Your task to perform on an android device: turn notification dots off Image 0: 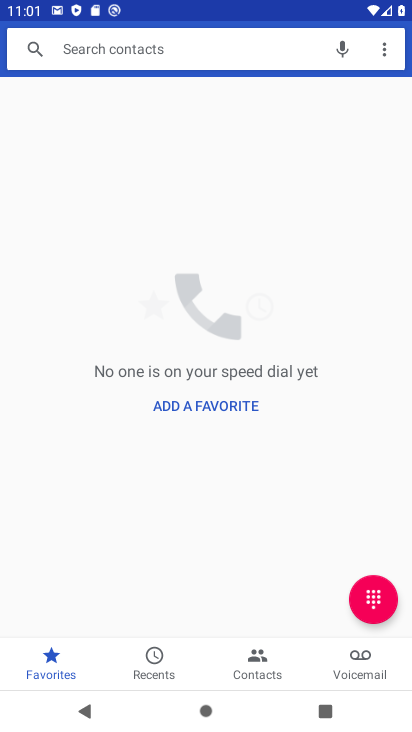
Step 0: press home button
Your task to perform on an android device: turn notification dots off Image 1: 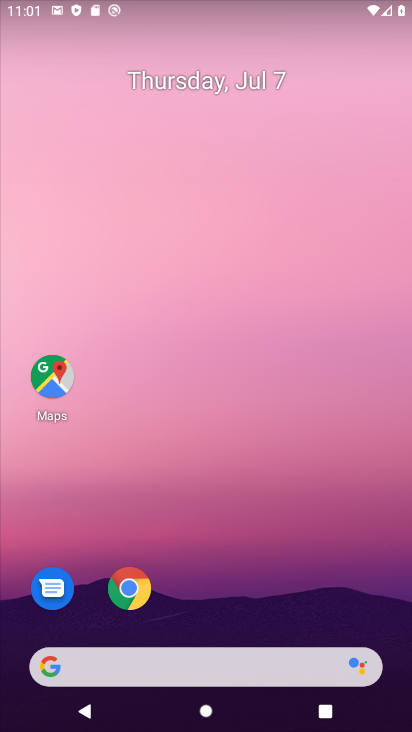
Step 1: drag from (185, 628) to (150, 57)
Your task to perform on an android device: turn notification dots off Image 2: 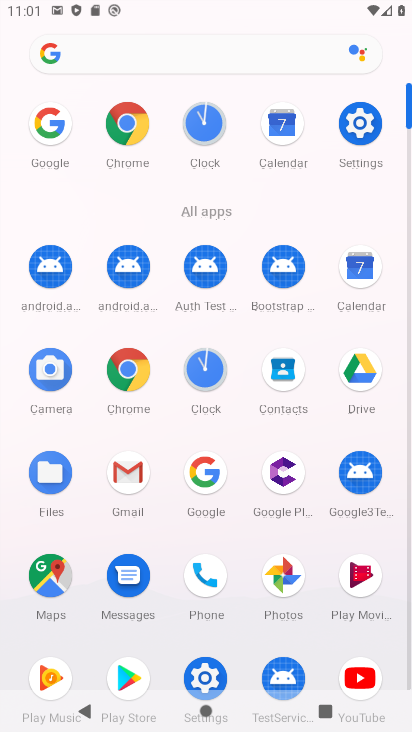
Step 2: click (330, 130)
Your task to perform on an android device: turn notification dots off Image 3: 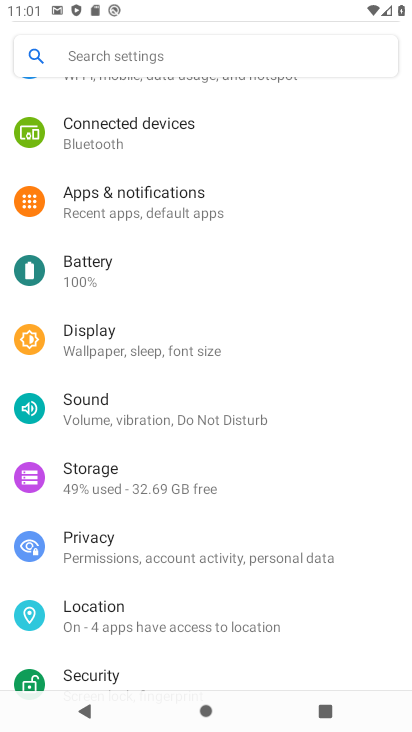
Step 3: click (188, 200)
Your task to perform on an android device: turn notification dots off Image 4: 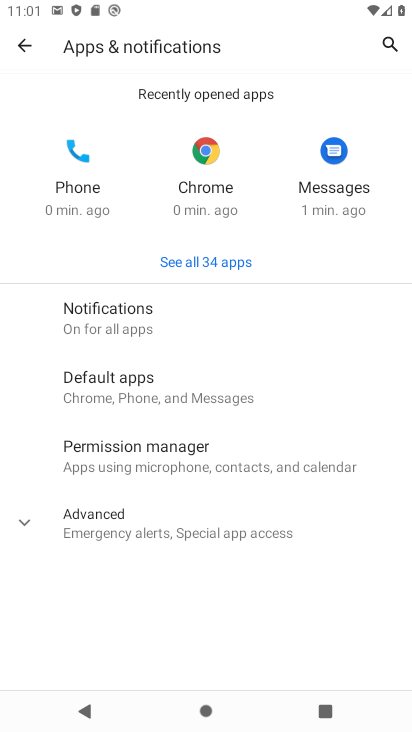
Step 4: click (96, 360)
Your task to perform on an android device: turn notification dots off Image 5: 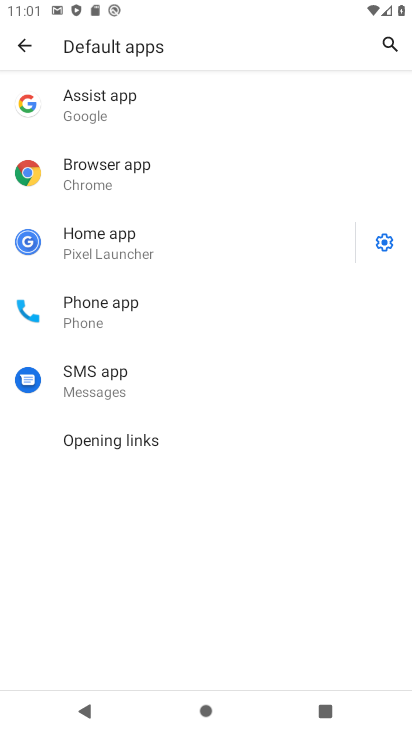
Step 5: click (30, 32)
Your task to perform on an android device: turn notification dots off Image 6: 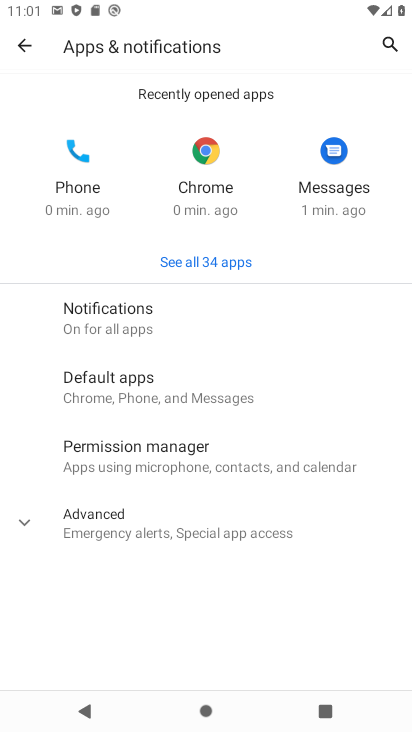
Step 6: click (172, 294)
Your task to perform on an android device: turn notification dots off Image 7: 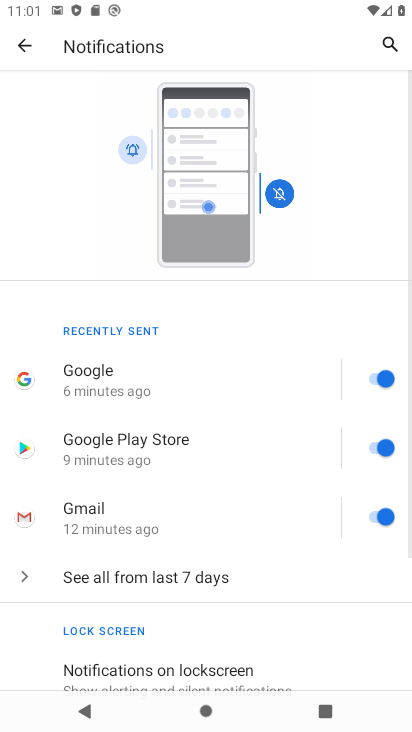
Step 7: drag from (169, 640) to (126, 174)
Your task to perform on an android device: turn notification dots off Image 8: 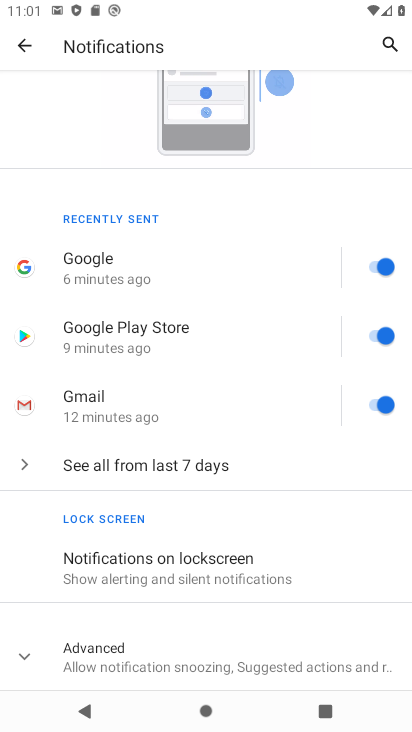
Step 8: click (168, 654)
Your task to perform on an android device: turn notification dots off Image 9: 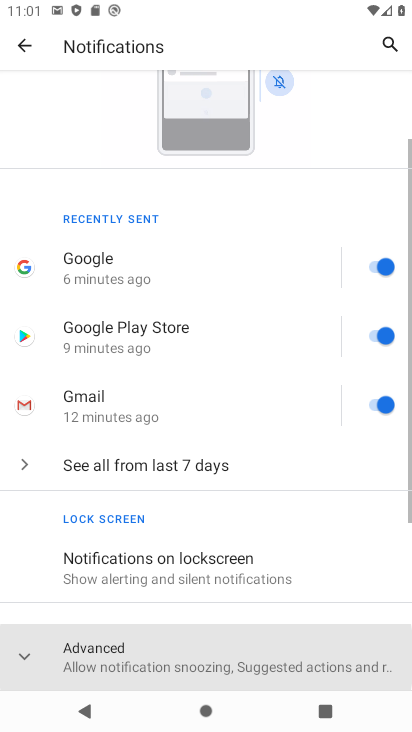
Step 9: task complete